Your task to perform on an android device: turn on the 12-hour format for clock Image 0: 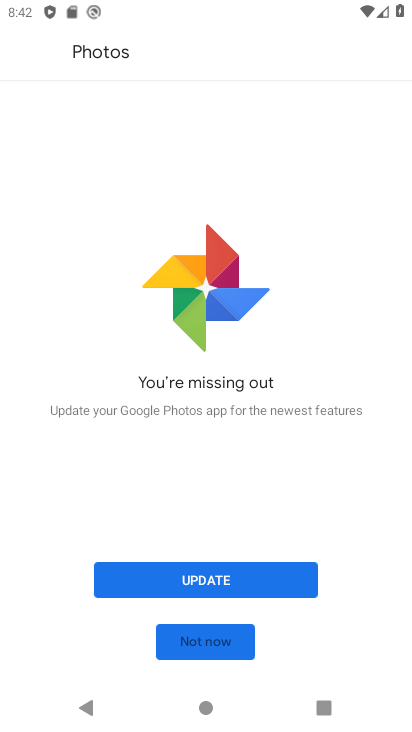
Step 0: press home button
Your task to perform on an android device: turn on the 12-hour format for clock Image 1: 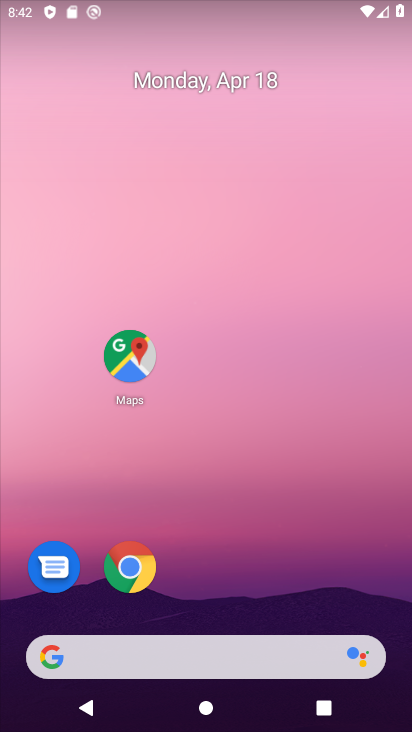
Step 1: drag from (255, 690) to (250, 157)
Your task to perform on an android device: turn on the 12-hour format for clock Image 2: 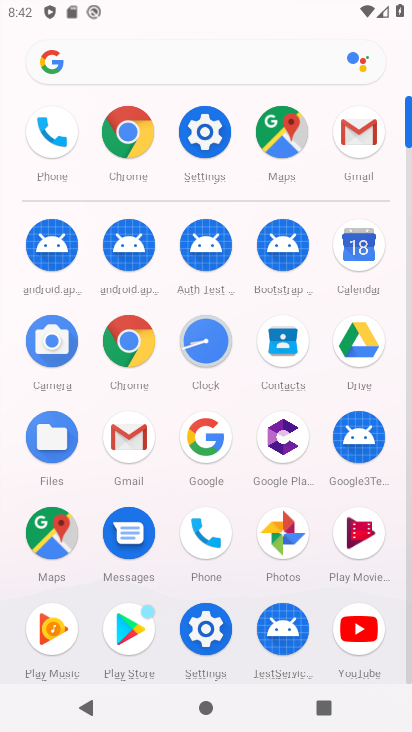
Step 2: click (209, 364)
Your task to perform on an android device: turn on the 12-hour format for clock Image 3: 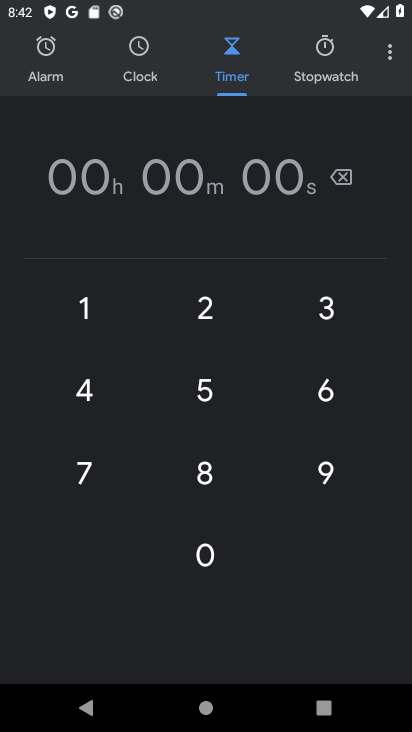
Step 3: click (394, 49)
Your task to perform on an android device: turn on the 12-hour format for clock Image 4: 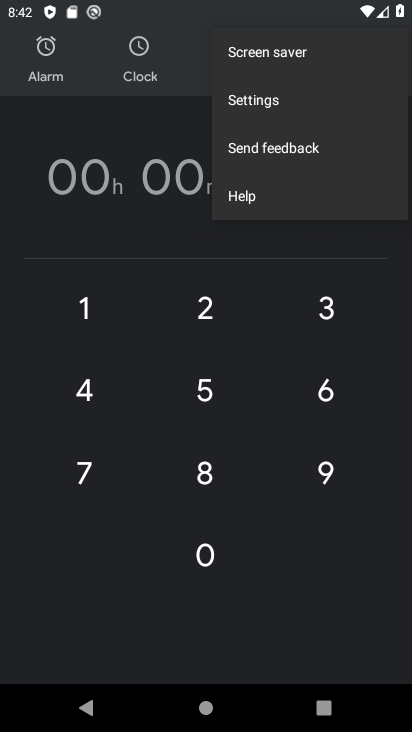
Step 4: click (286, 104)
Your task to perform on an android device: turn on the 12-hour format for clock Image 5: 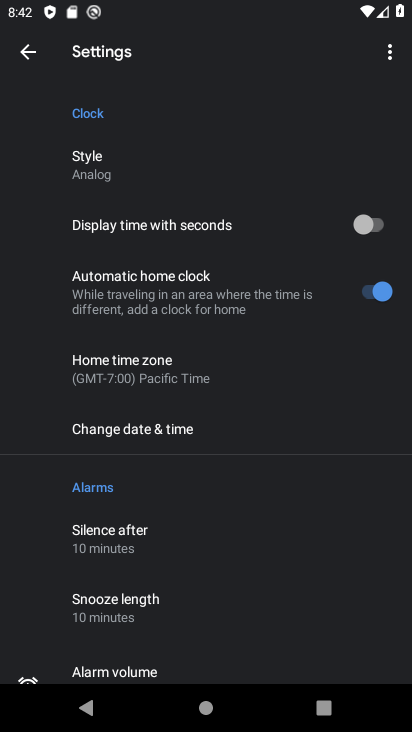
Step 5: click (128, 429)
Your task to perform on an android device: turn on the 12-hour format for clock Image 6: 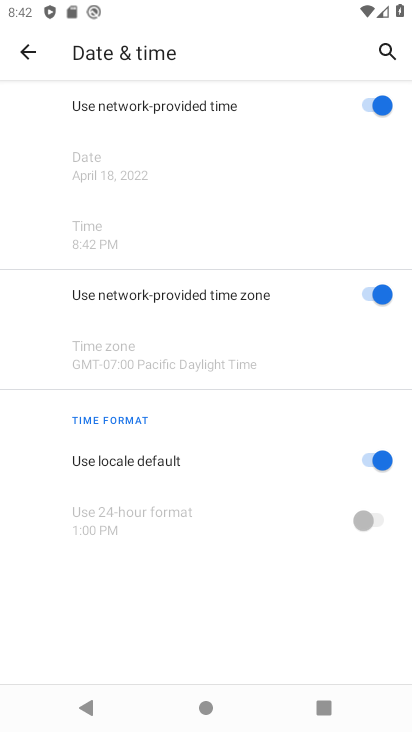
Step 6: click (368, 455)
Your task to perform on an android device: turn on the 12-hour format for clock Image 7: 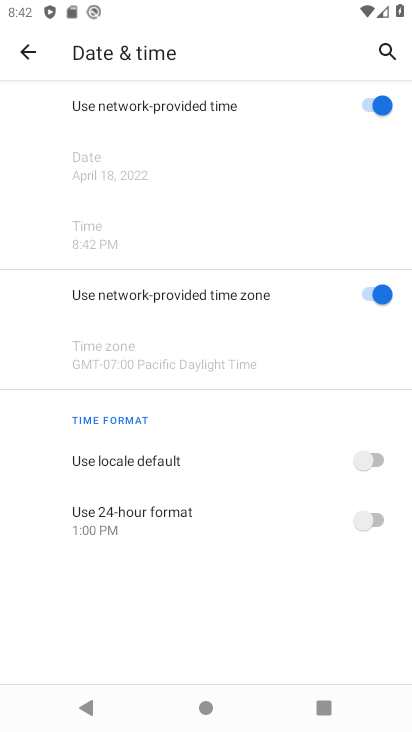
Step 7: click (375, 506)
Your task to perform on an android device: turn on the 12-hour format for clock Image 8: 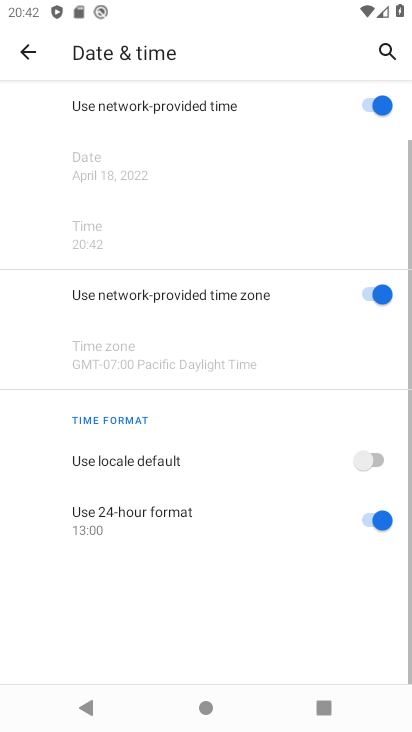
Step 8: click (375, 506)
Your task to perform on an android device: turn on the 12-hour format for clock Image 9: 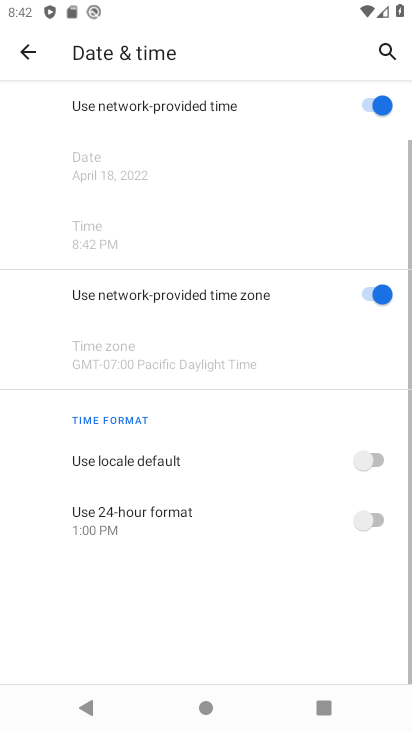
Step 9: task complete